Your task to perform on an android device: open app "LinkedIn" Image 0: 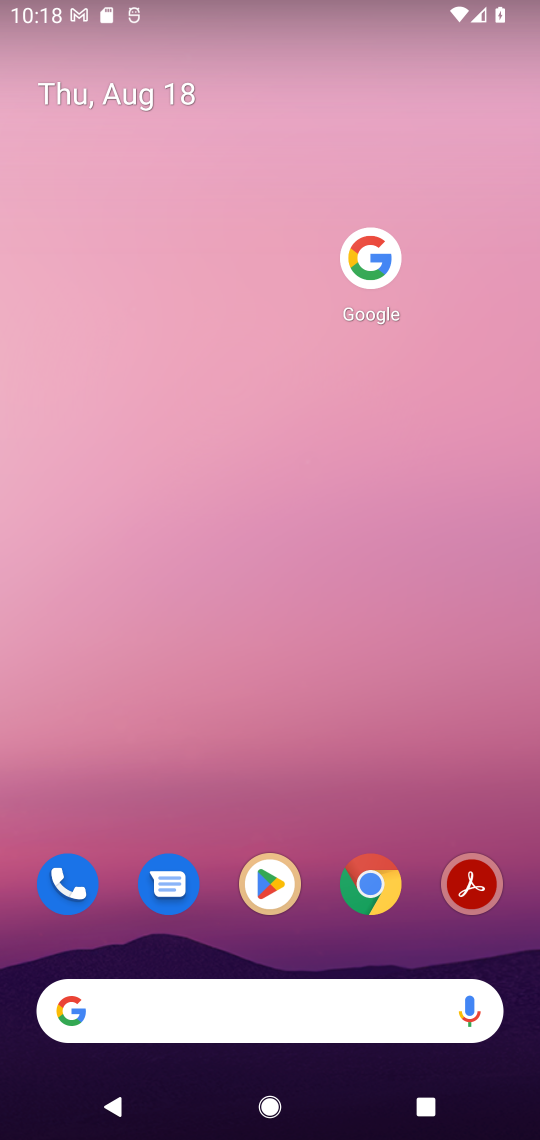
Step 0: drag from (319, 958) to (280, 84)
Your task to perform on an android device: open app "LinkedIn" Image 1: 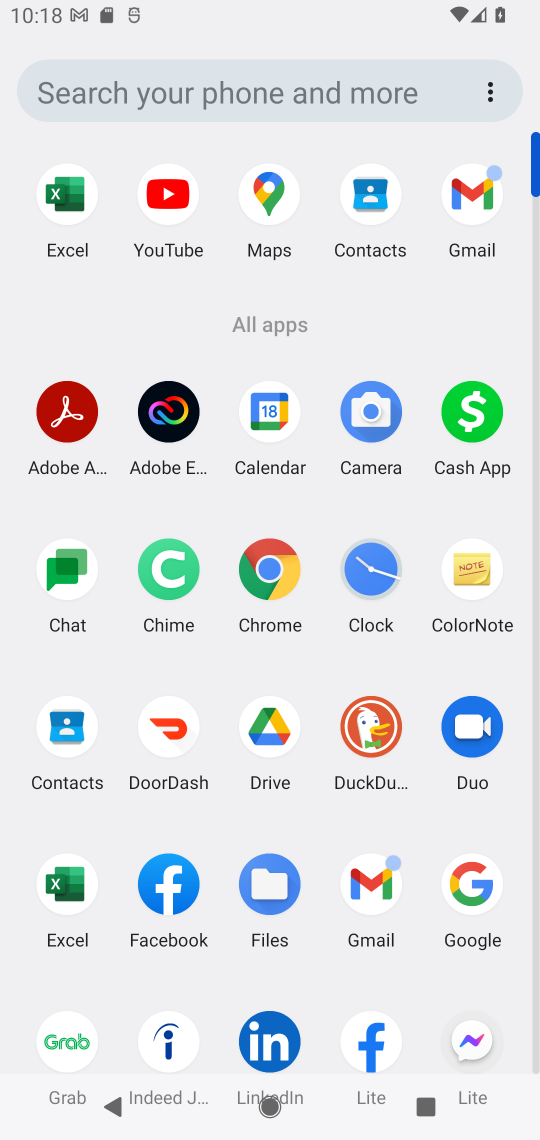
Step 1: click (294, 1019)
Your task to perform on an android device: open app "LinkedIn" Image 2: 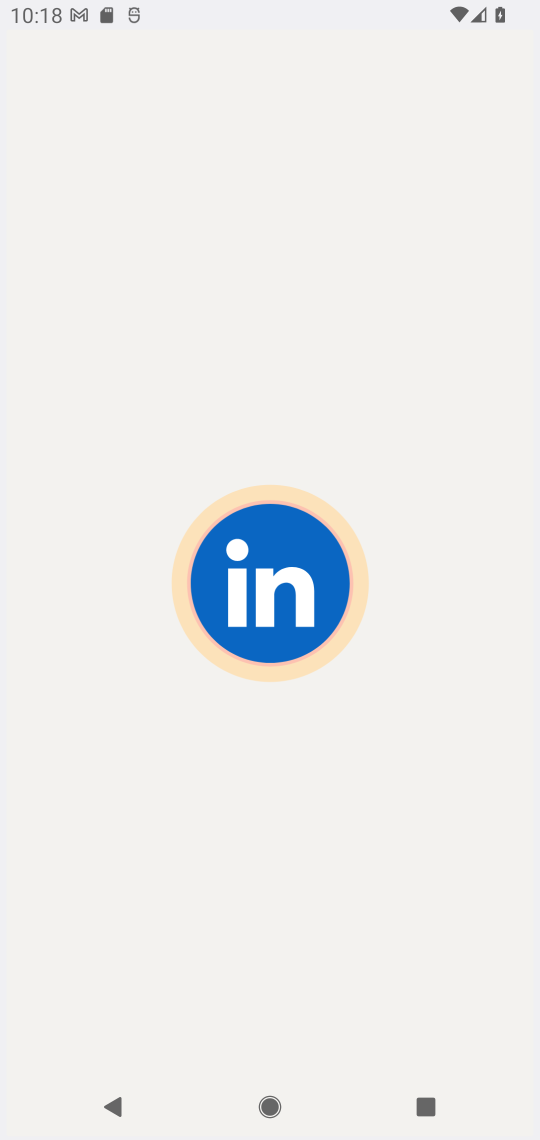
Step 2: task complete